Your task to perform on an android device: toggle airplane mode Image 0: 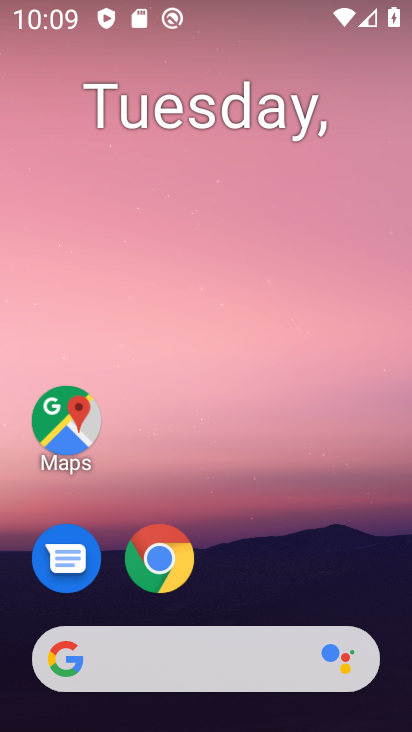
Step 0: drag from (345, 578) to (353, 62)
Your task to perform on an android device: toggle airplane mode Image 1: 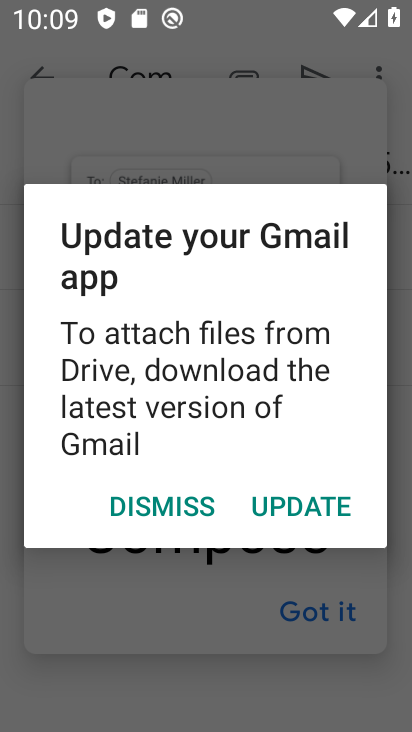
Step 1: press home button
Your task to perform on an android device: toggle airplane mode Image 2: 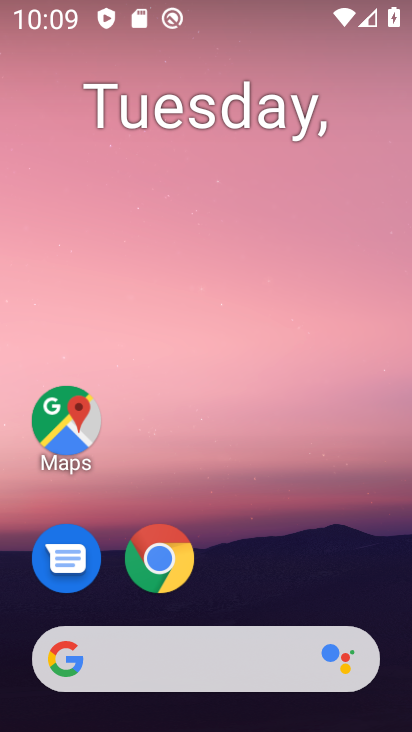
Step 2: drag from (370, 582) to (367, 55)
Your task to perform on an android device: toggle airplane mode Image 3: 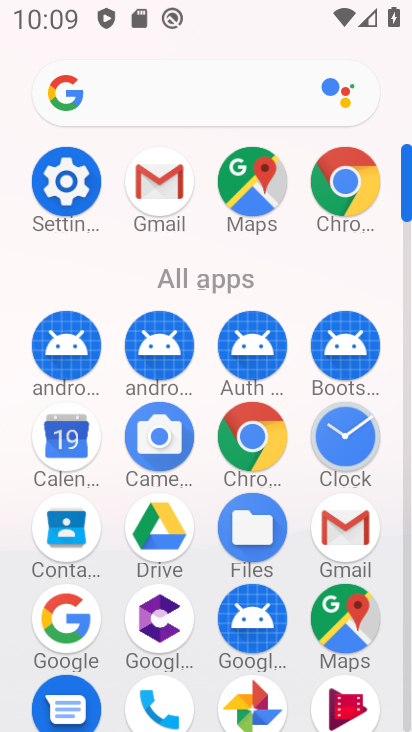
Step 3: click (79, 188)
Your task to perform on an android device: toggle airplane mode Image 4: 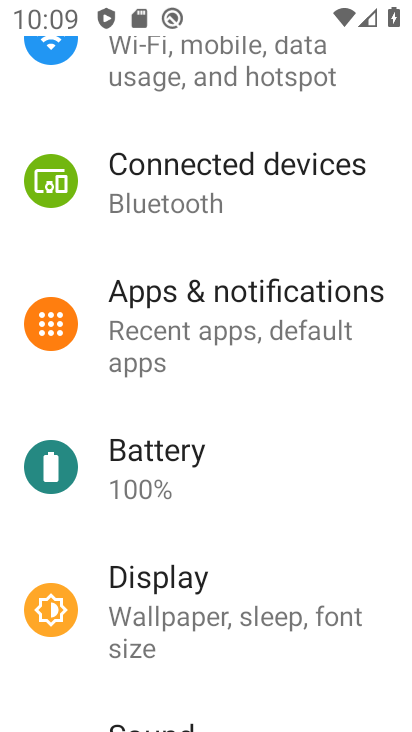
Step 4: drag from (331, 218) to (336, 318)
Your task to perform on an android device: toggle airplane mode Image 5: 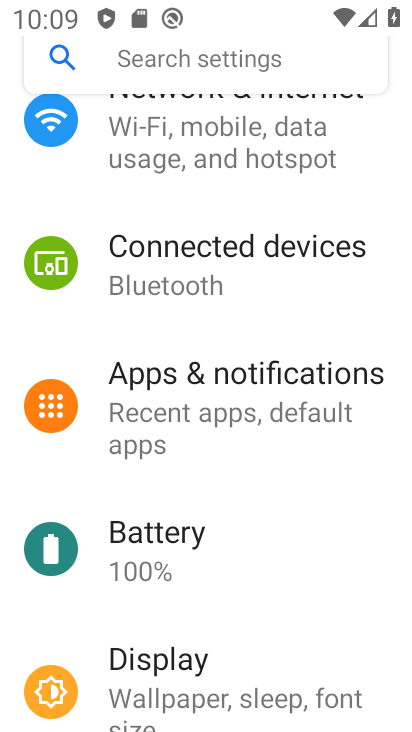
Step 5: drag from (365, 190) to (370, 337)
Your task to perform on an android device: toggle airplane mode Image 6: 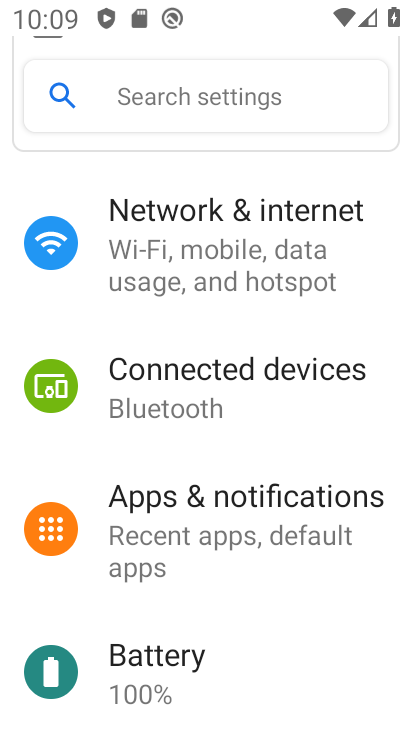
Step 6: click (339, 257)
Your task to perform on an android device: toggle airplane mode Image 7: 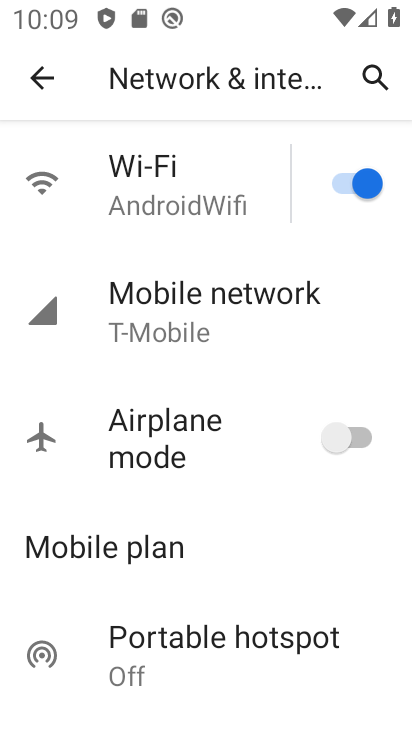
Step 7: click (342, 445)
Your task to perform on an android device: toggle airplane mode Image 8: 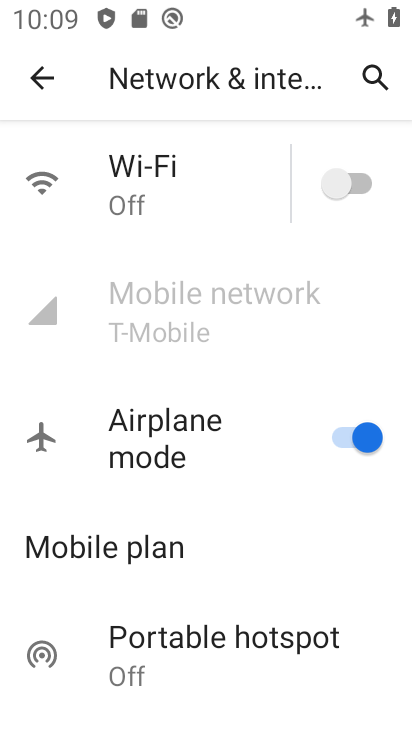
Step 8: task complete